Your task to perform on an android device: Set the phone to "Do not disturb". Image 0: 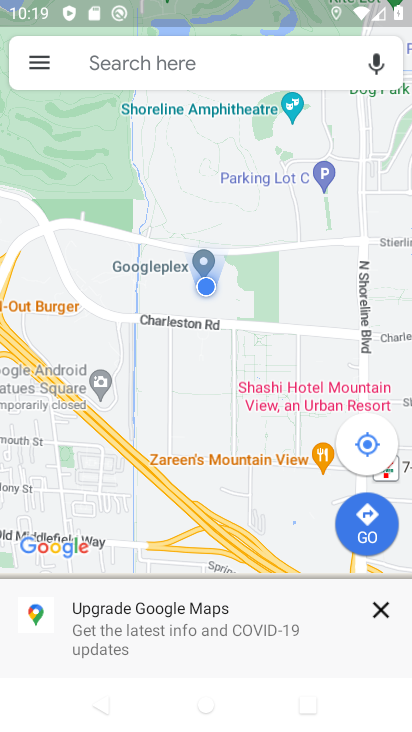
Step 0: press home button
Your task to perform on an android device: Set the phone to "Do not disturb". Image 1: 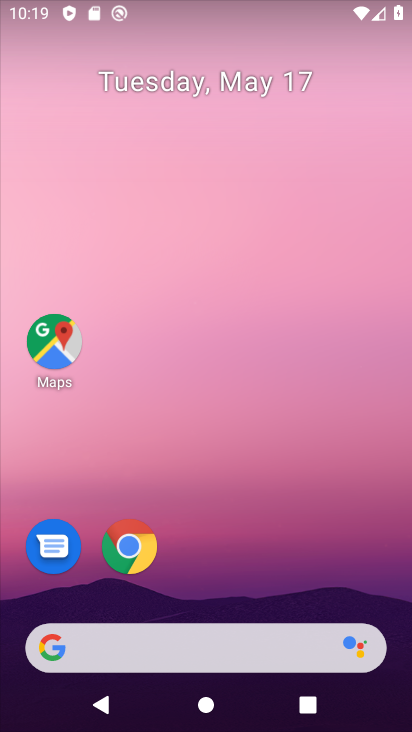
Step 1: drag from (320, 569) to (309, 18)
Your task to perform on an android device: Set the phone to "Do not disturb". Image 2: 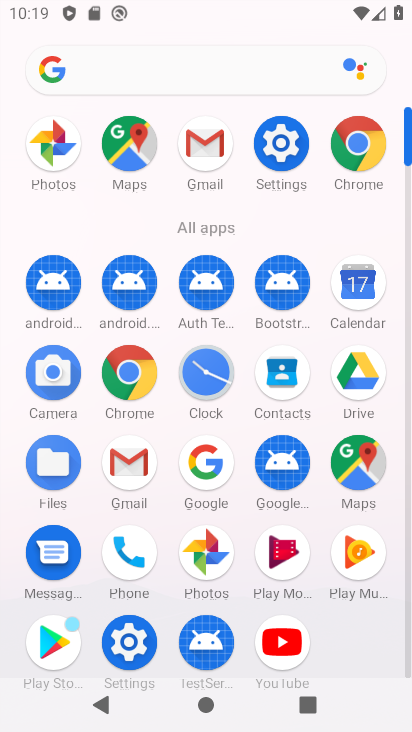
Step 2: click (279, 151)
Your task to perform on an android device: Set the phone to "Do not disturb". Image 3: 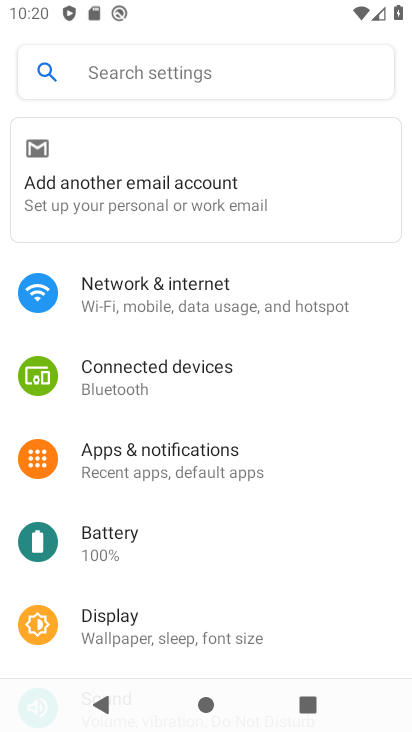
Step 3: drag from (250, 555) to (254, 237)
Your task to perform on an android device: Set the phone to "Do not disturb". Image 4: 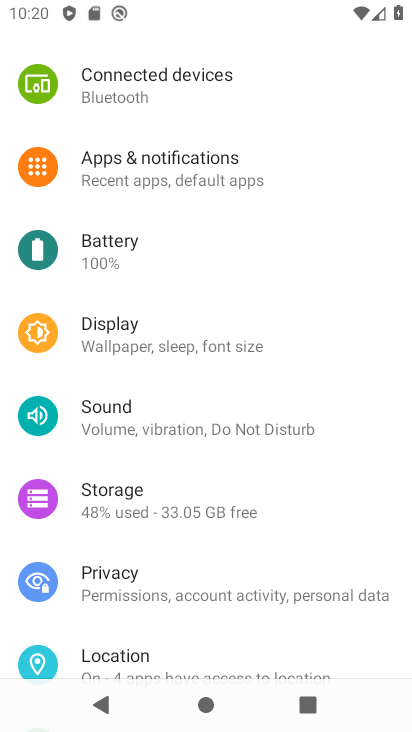
Step 4: click (125, 420)
Your task to perform on an android device: Set the phone to "Do not disturb". Image 5: 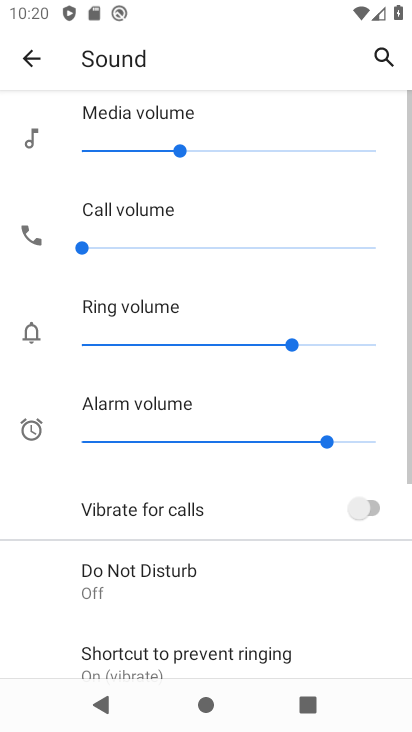
Step 5: click (106, 567)
Your task to perform on an android device: Set the phone to "Do not disturb". Image 6: 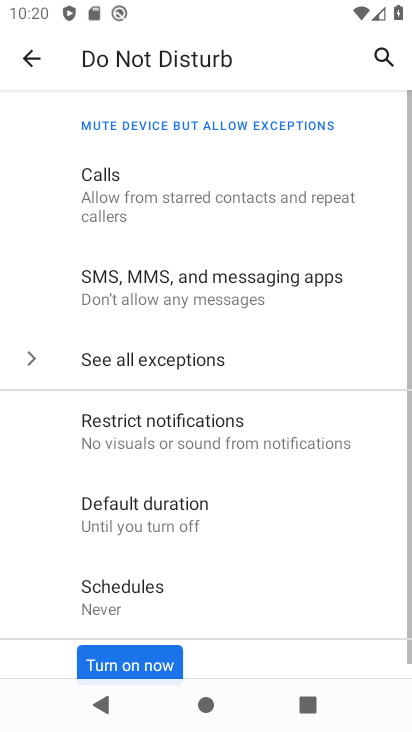
Step 6: drag from (106, 567) to (132, 330)
Your task to perform on an android device: Set the phone to "Do not disturb". Image 7: 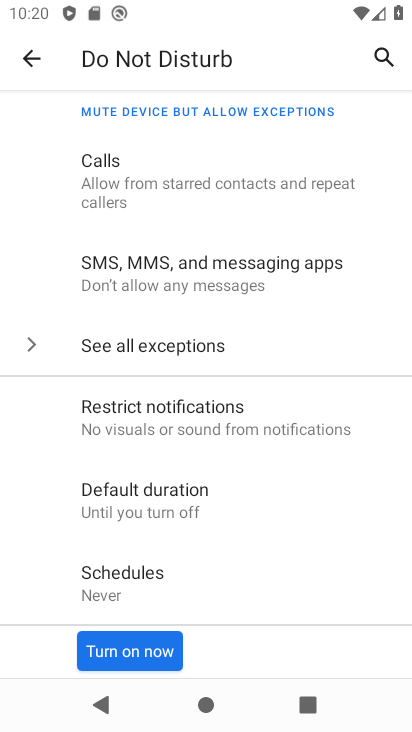
Step 7: click (128, 645)
Your task to perform on an android device: Set the phone to "Do not disturb". Image 8: 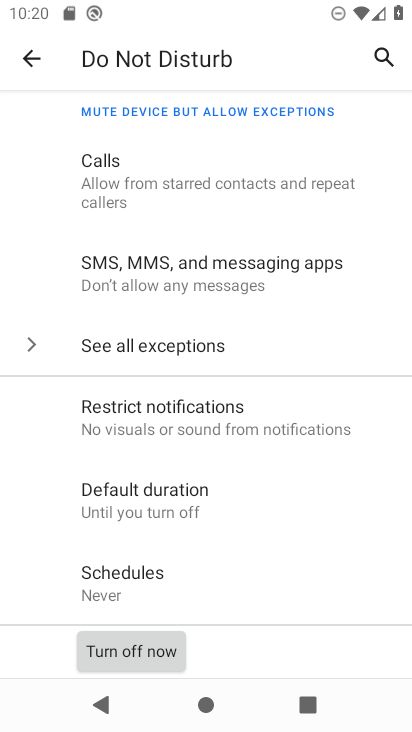
Step 8: task complete